Your task to perform on an android device: Open the map Image 0: 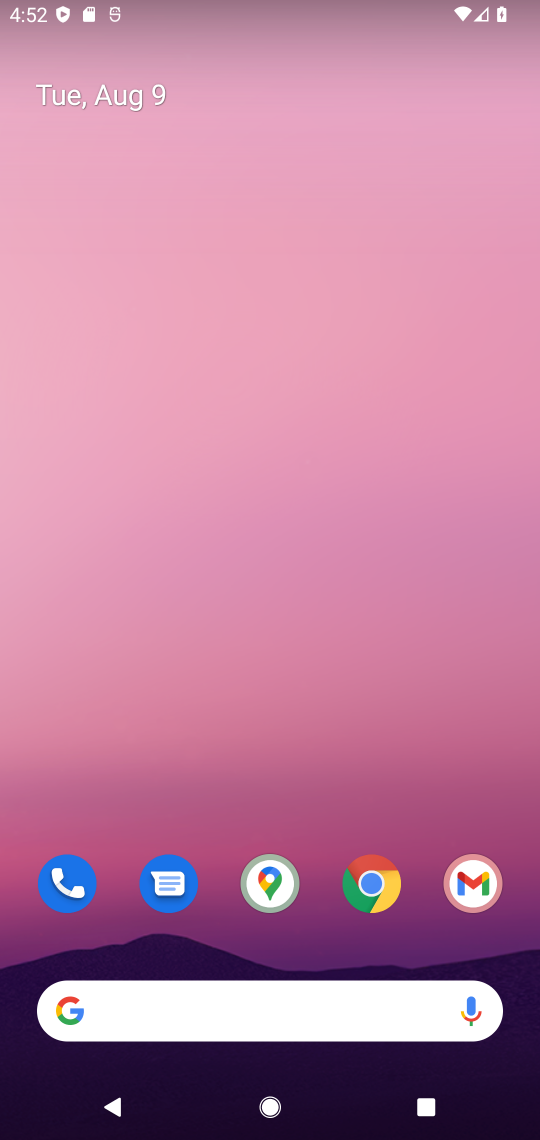
Step 0: click (268, 886)
Your task to perform on an android device: Open the map Image 1: 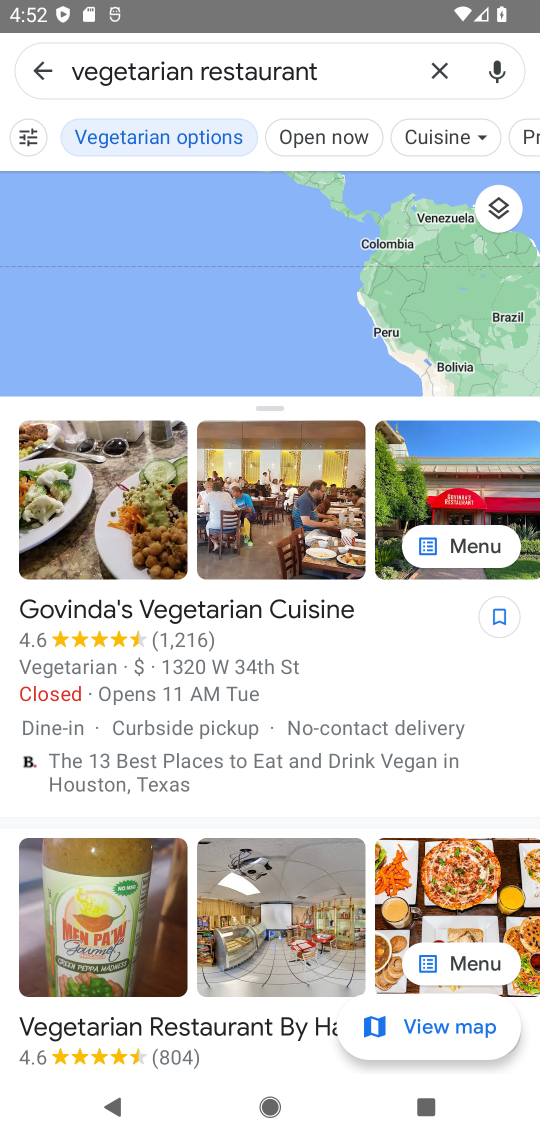
Step 1: task complete